Your task to perform on an android device: Open settings Image 0: 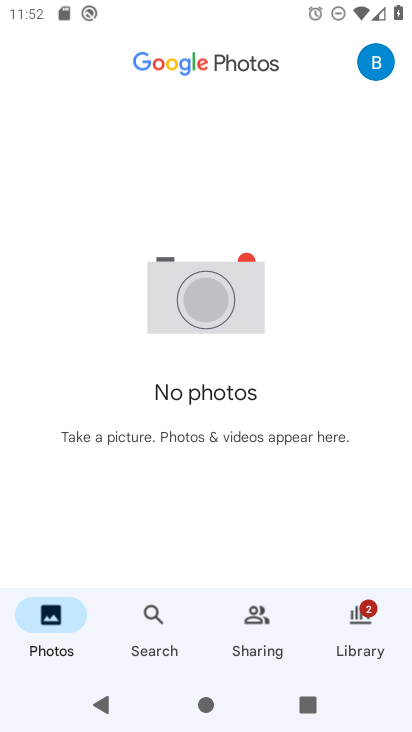
Step 0: press home button
Your task to perform on an android device: Open settings Image 1: 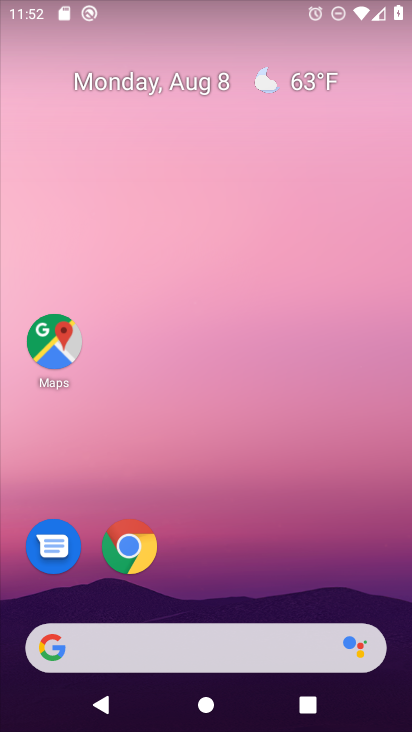
Step 1: drag from (219, 593) to (284, 62)
Your task to perform on an android device: Open settings Image 2: 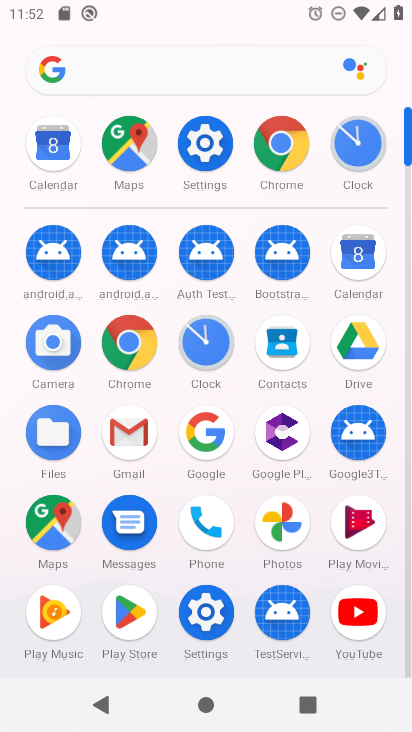
Step 2: click (203, 609)
Your task to perform on an android device: Open settings Image 3: 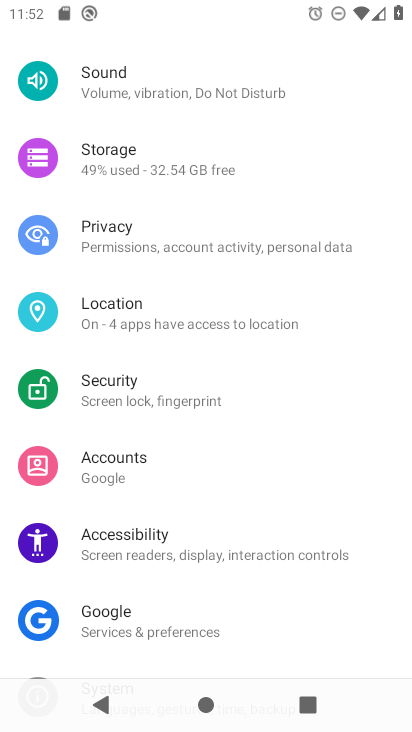
Step 3: task complete